Your task to perform on an android device: manage bookmarks in the chrome app Image 0: 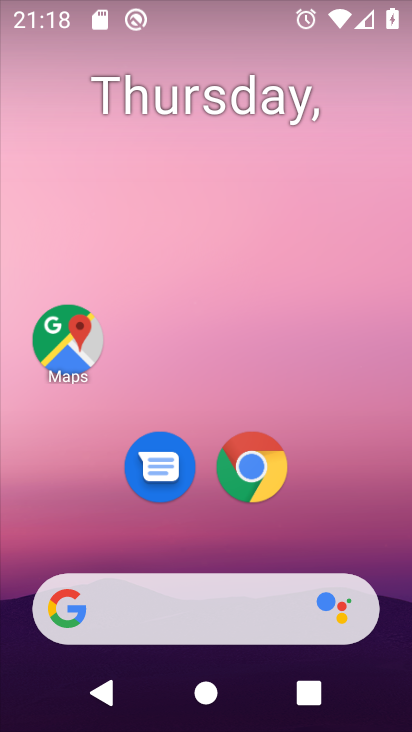
Step 0: click (258, 461)
Your task to perform on an android device: manage bookmarks in the chrome app Image 1: 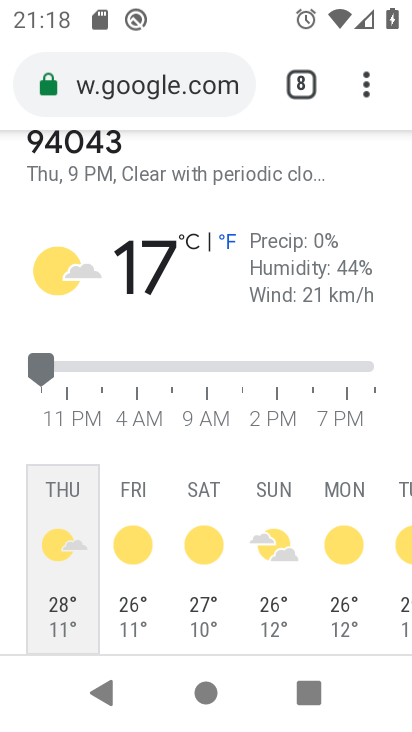
Step 1: click (362, 64)
Your task to perform on an android device: manage bookmarks in the chrome app Image 2: 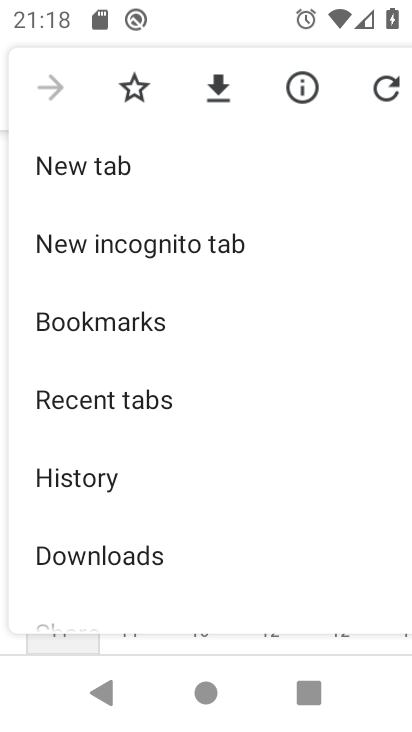
Step 2: click (160, 319)
Your task to perform on an android device: manage bookmarks in the chrome app Image 3: 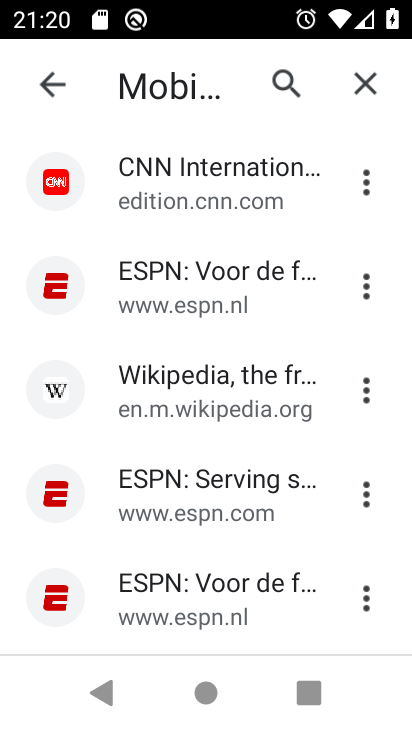
Step 3: task complete